Your task to perform on an android device: Show me the alarms in the clock app Image 0: 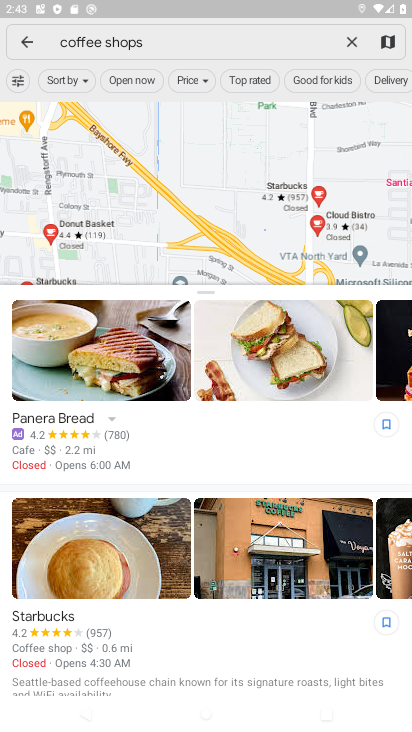
Step 0: press home button
Your task to perform on an android device: Show me the alarms in the clock app Image 1: 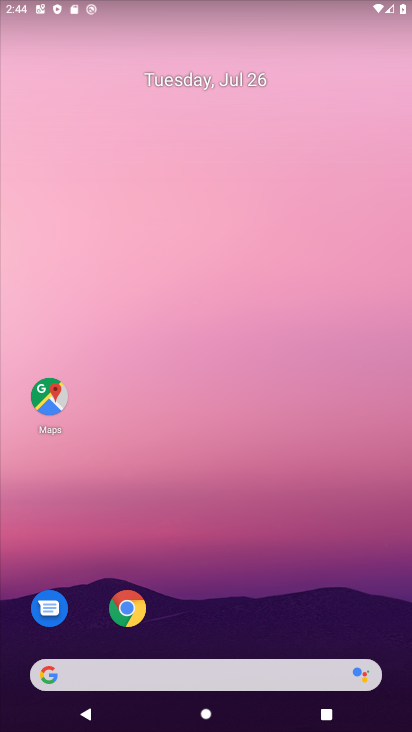
Step 1: drag from (205, 554) to (321, 59)
Your task to perform on an android device: Show me the alarms in the clock app Image 2: 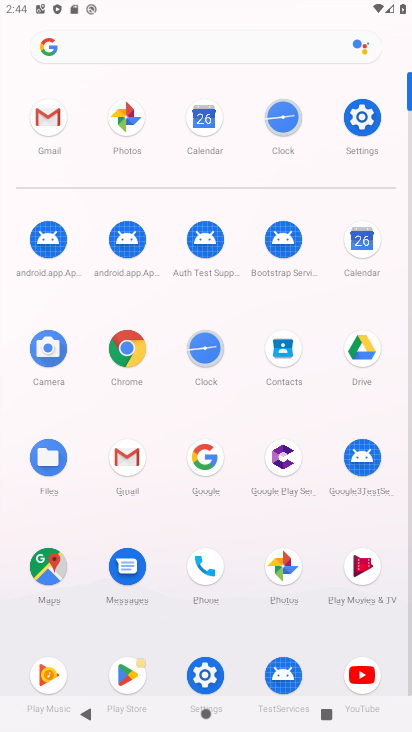
Step 2: click (203, 346)
Your task to perform on an android device: Show me the alarms in the clock app Image 3: 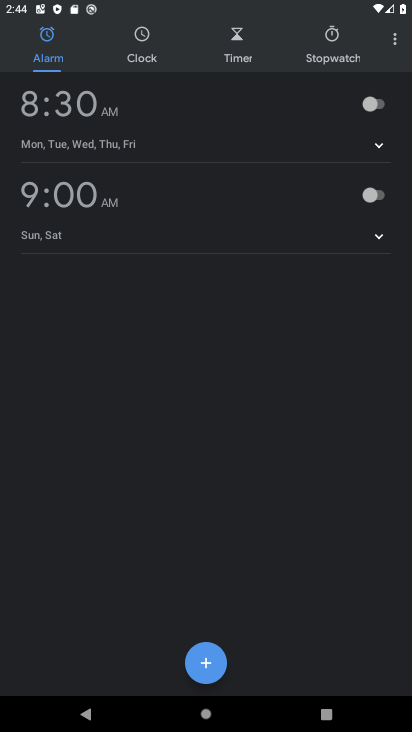
Step 3: task complete